Your task to perform on an android device: Open my contact list Image 0: 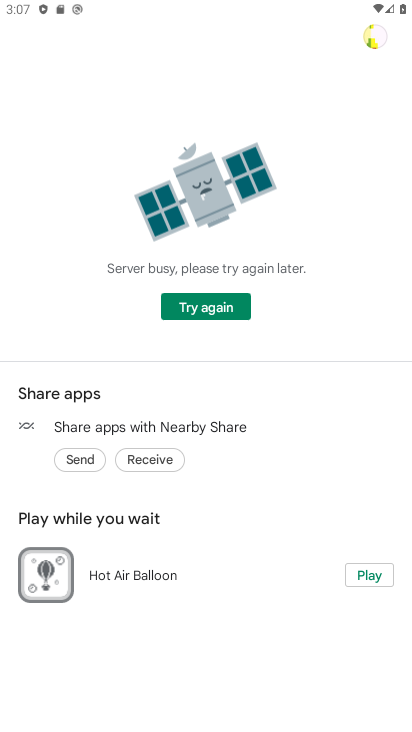
Step 0: press home button
Your task to perform on an android device: Open my contact list Image 1: 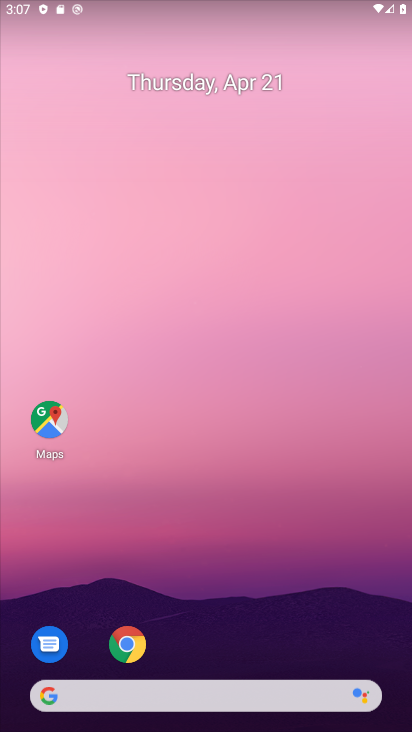
Step 1: drag from (258, 401) to (270, 40)
Your task to perform on an android device: Open my contact list Image 2: 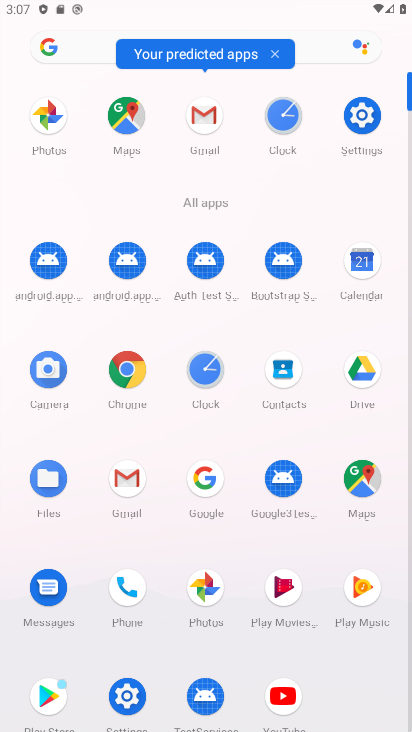
Step 2: click (286, 366)
Your task to perform on an android device: Open my contact list Image 3: 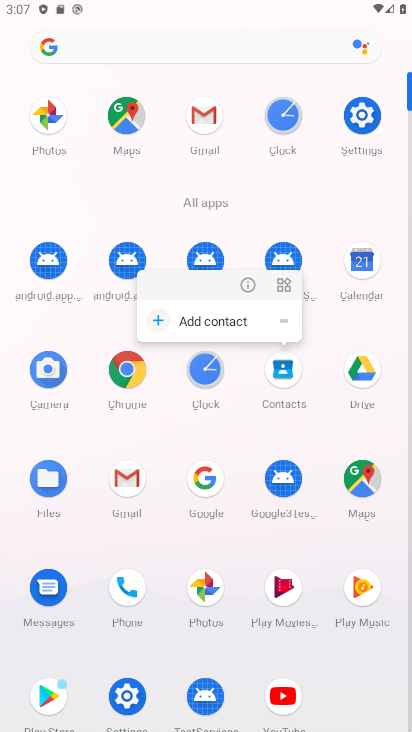
Step 3: click (293, 366)
Your task to perform on an android device: Open my contact list Image 4: 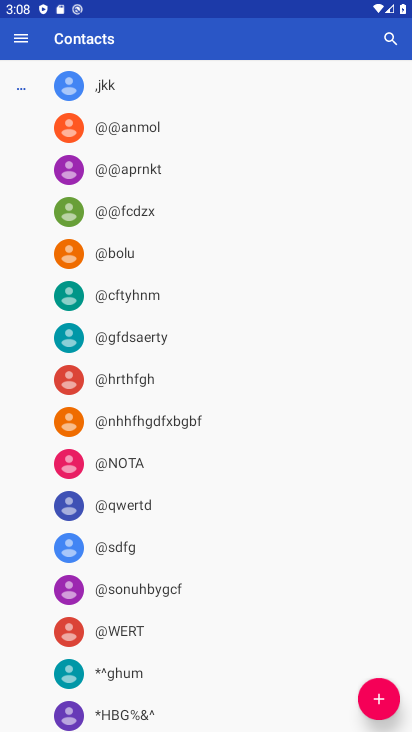
Step 4: task complete